Your task to perform on an android device: turn off notifications settings in the gmail app Image 0: 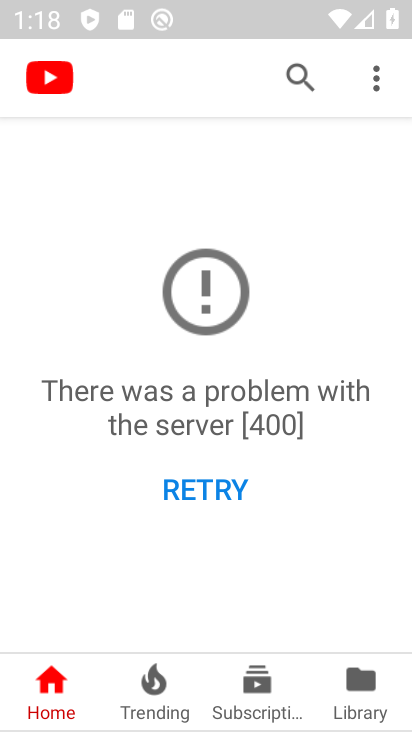
Step 0: press home button
Your task to perform on an android device: turn off notifications settings in the gmail app Image 1: 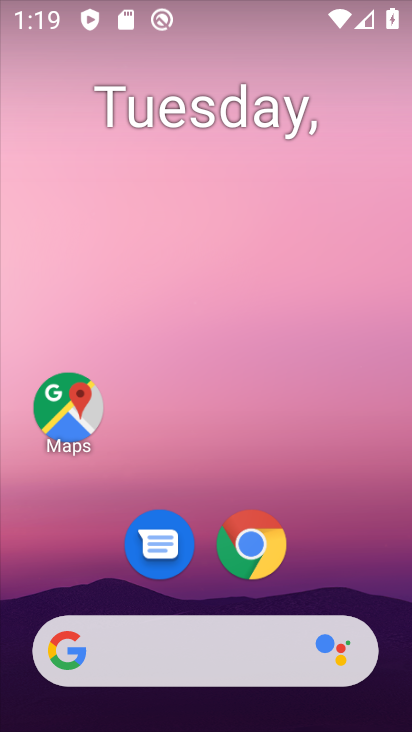
Step 1: drag from (385, 555) to (338, 69)
Your task to perform on an android device: turn off notifications settings in the gmail app Image 2: 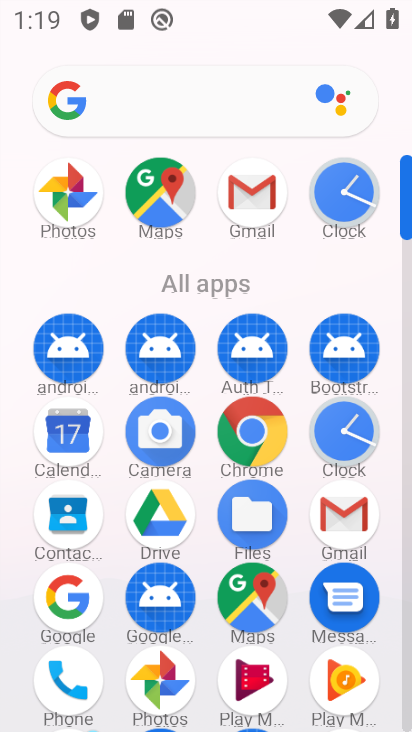
Step 2: click (368, 534)
Your task to perform on an android device: turn off notifications settings in the gmail app Image 3: 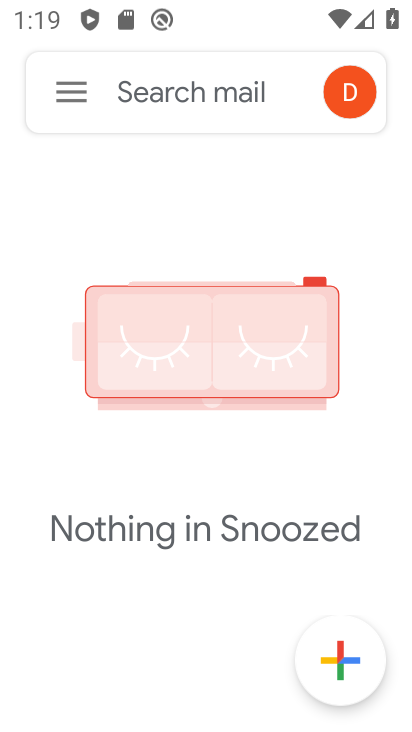
Step 3: click (74, 87)
Your task to perform on an android device: turn off notifications settings in the gmail app Image 4: 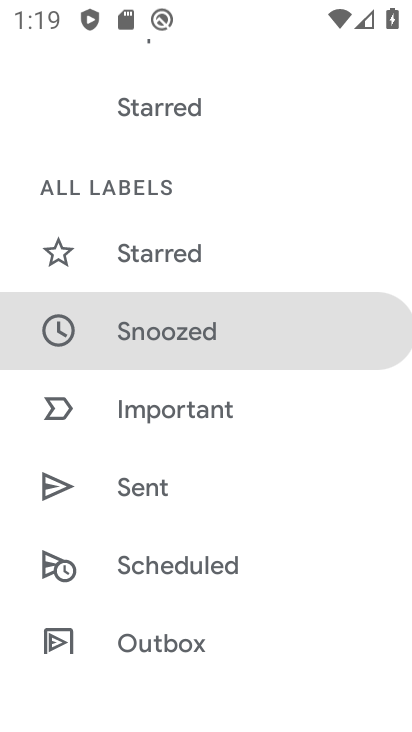
Step 4: drag from (338, 578) to (330, 411)
Your task to perform on an android device: turn off notifications settings in the gmail app Image 5: 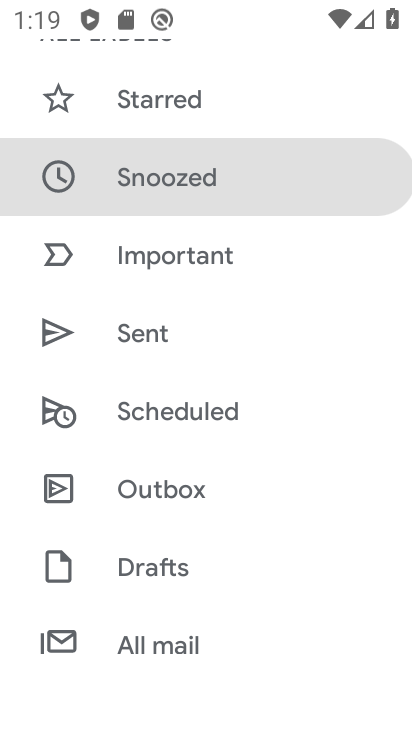
Step 5: drag from (314, 582) to (314, 454)
Your task to perform on an android device: turn off notifications settings in the gmail app Image 6: 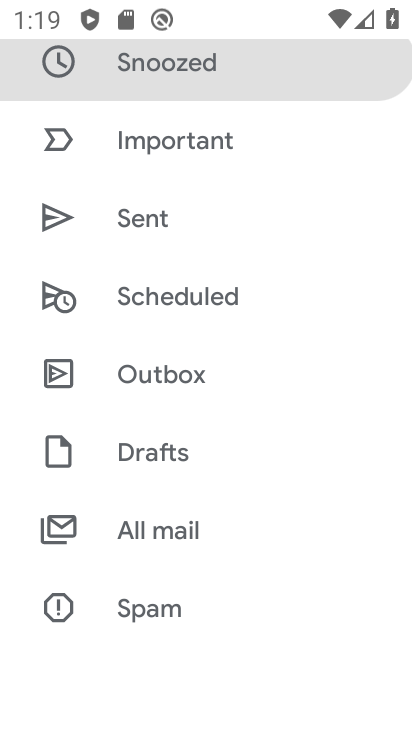
Step 6: drag from (301, 601) to (307, 457)
Your task to perform on an android device: turn off notifications settings in the gmail app Image 7: 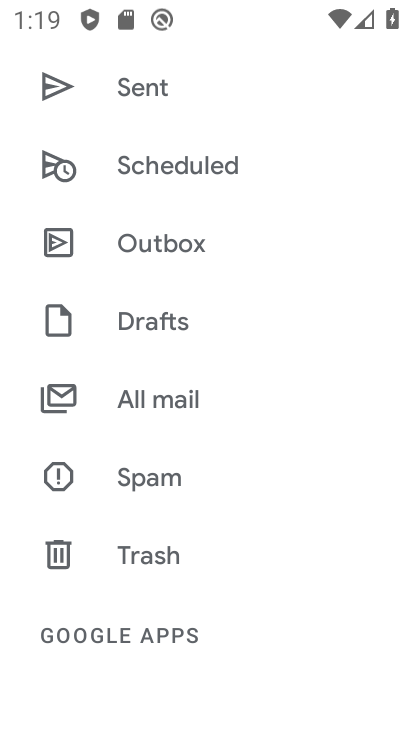
Step 7: drag from (305, 568) to (312, 448)
Your task to perform on an android device: turn off notifications settings in the gmail app Image 8: 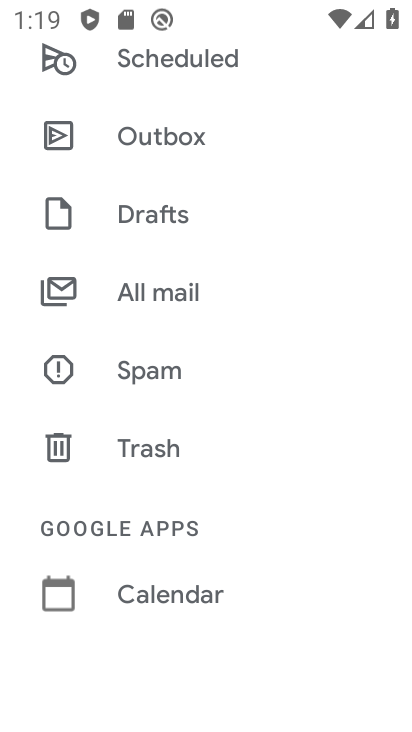
Step 8: drag from (315, 276) to (316, 399)
Your task to perform on an android device: turn off notifications settings in the gmail app Image 9: 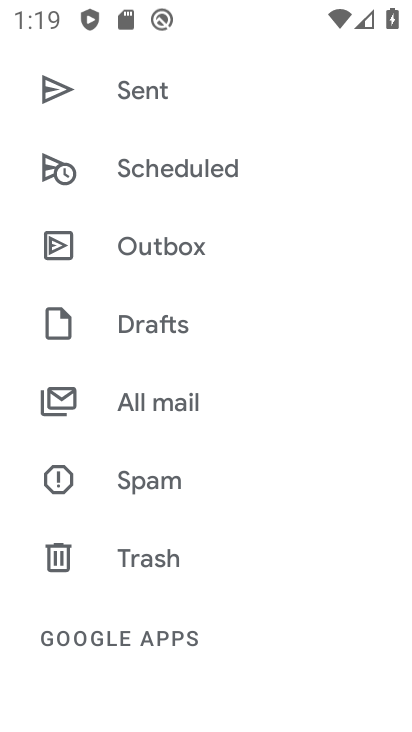
Step 9: drag from (308, 202) to (303, 339)
Your task to perform on an android device: turn off notifications settings in the gmail app Image 10: 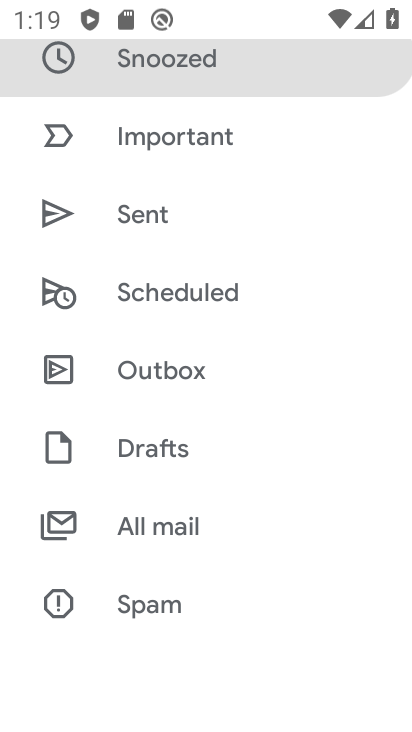
Step 10: drag from (305, 199) to (304, 323)
Your task to perform on an android device: turn off notifications settings in the gmail app Image 11: 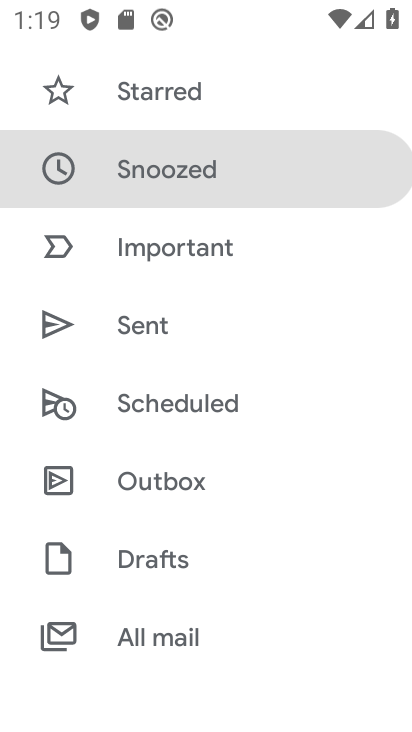
Step 11: drag from (300, 155) to (298, 321)
Your task to perform on an android device: turn off notifications settings in the gmail app Image 12: 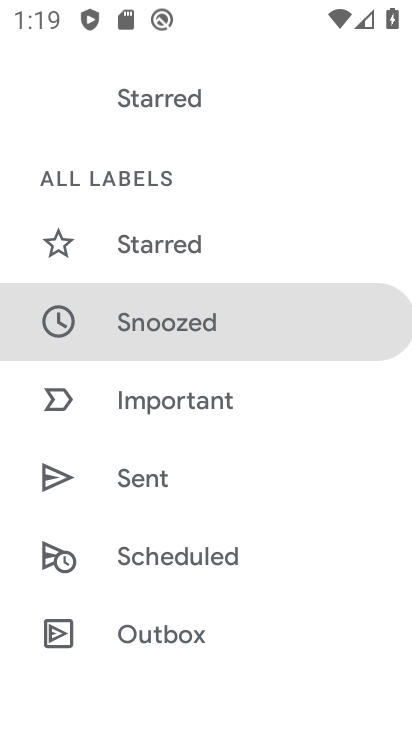
Step 12: drag from (304, 130) to (304, 293)
Your task to perform on an android device: turn off notifications settings in the gmail app Image 13: 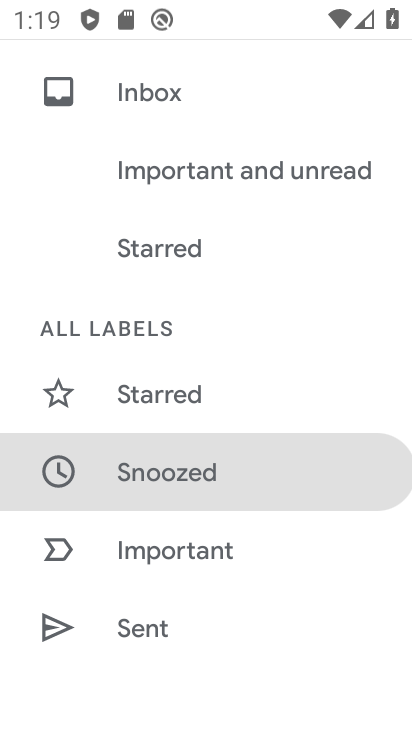
Step 13: drag from (284, 478) to (312, 269)
Your task to perform on an android device: turn off notifications settings in the gmail app Image 14: 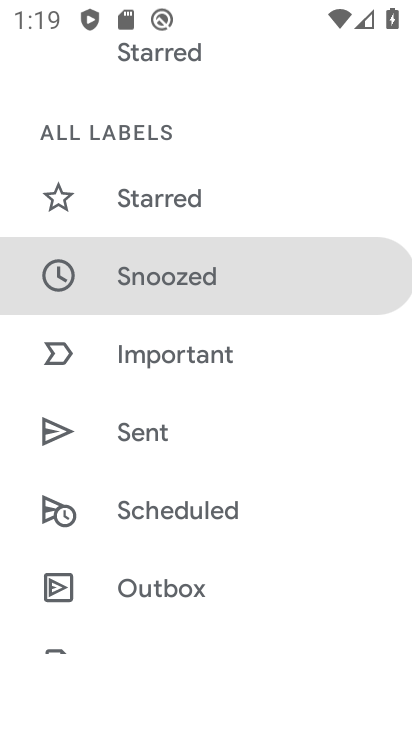
Step 14: drag from (311, 510) to (335, 345)
Your task to perform on an android device: turn off notifications settings in the gmail app Image 15: 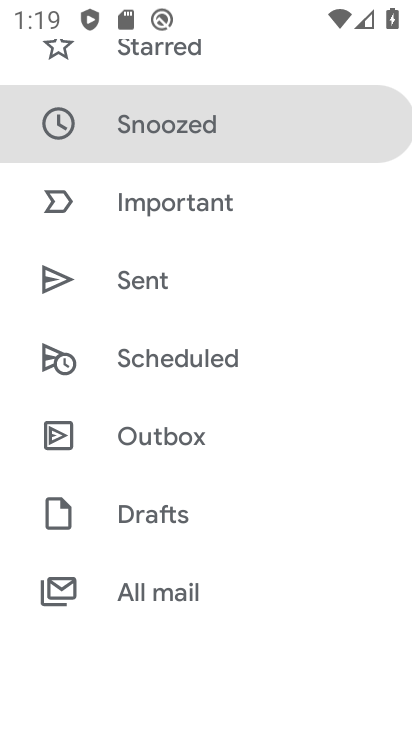
Step 15: drag from (295, 567) to (307, 382)
Your task to perform on an android device: turn off notifications settings in the gmail app Image 16: 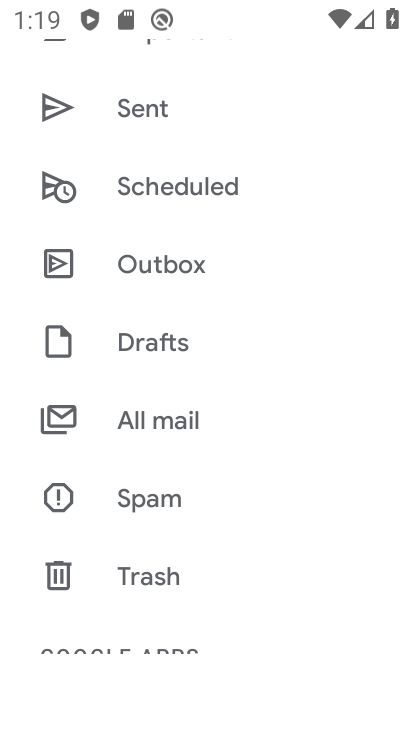
Step 16: drag from (298, 570) to (304, 409)
Your task to perform on an android device: turn off notifications settings in the gmail app Image 17: 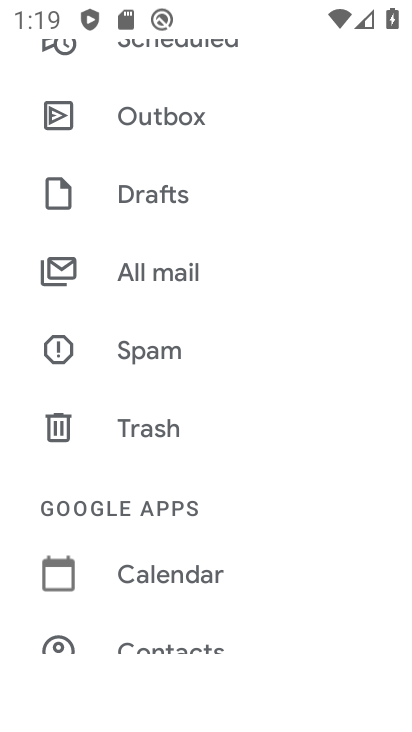
Step 17: drag from (291, 568) to (290, 440)
Your task to perform on an android device: turn off notifications settings in the gmail app Image 18: 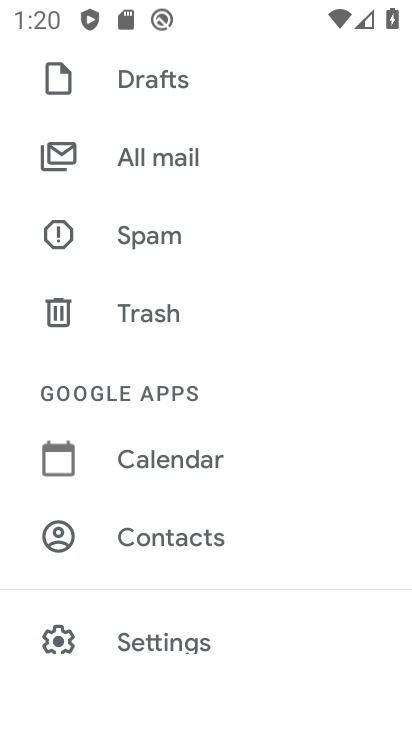
Step 18: click (201, 644)
Your task to perform on an android device: turn off notifications settings in the gmail app Image 19: 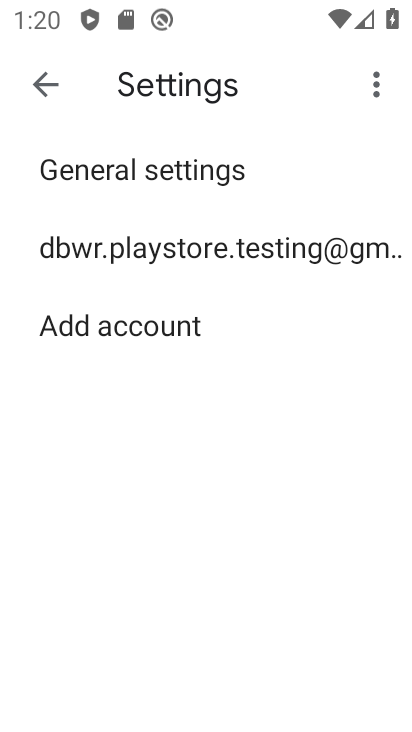
Step 19: click (293, 248)
Your task to perform on an android device: turn off notifications settings in the gmail app Image 20: 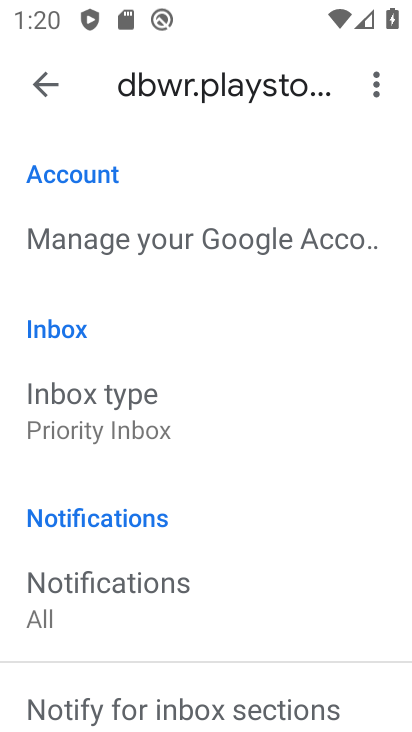
Step 20: drag from (285, 555) to (303, 439)
Your task to perform on an android device: turn off notifications settings in the gmail app Image 21: 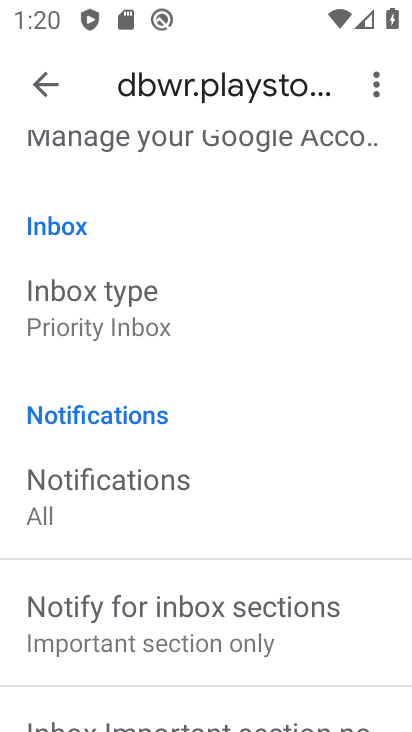
Step 21: drag from (321, 563) to (318, 364)
Your task to perform on an android device: turn off notifications settings in the gmail app Image 22: 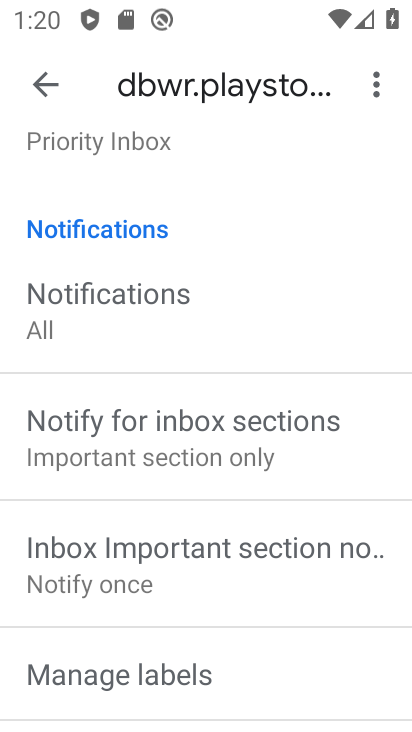
Step 22: drag from (323, 615) to (323, 452)
Your task to perform on an android device: turn off notifications settings in the gmail app Image 23: 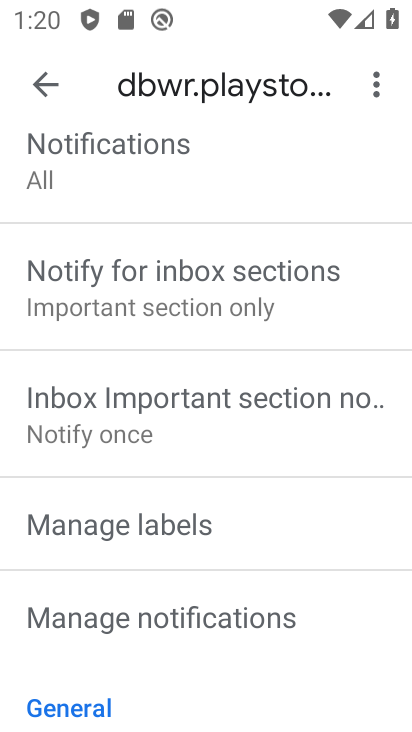
Step 23: drag from (307, 650) to (312, 448)
Your task to perform on an android device: turn off notifications settings in the gmail app Image 24: 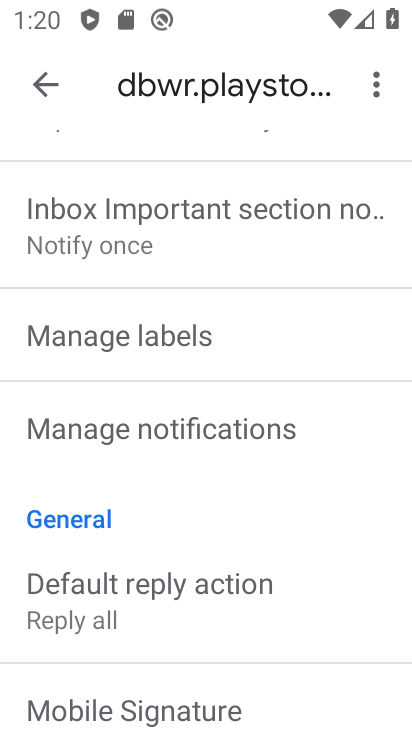
Step 24: click (256, 444)
Your task to perform on an android device: turn off notifications settings in the gmail app Image 25: 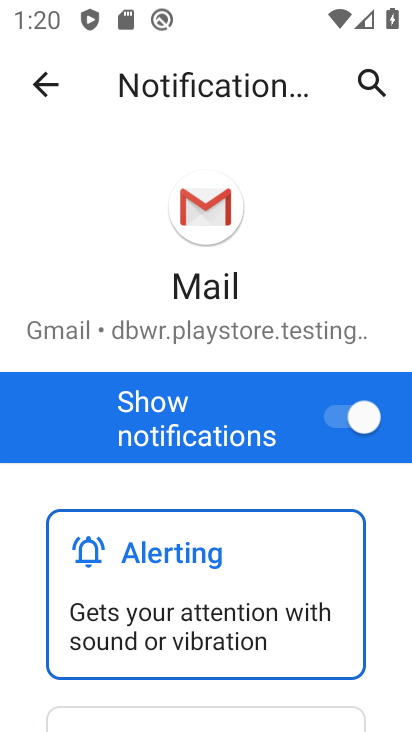
Step 25: click (372, 412)
Your task to perform on an android device: turn off notifications settings in the gmail app Image 26: 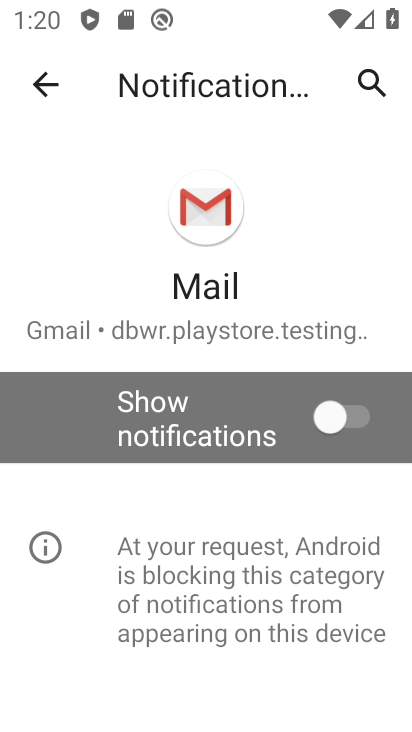
Step 26: task complete